Your task to perform on an android device: Show me popular videos on Youtube Image 0: 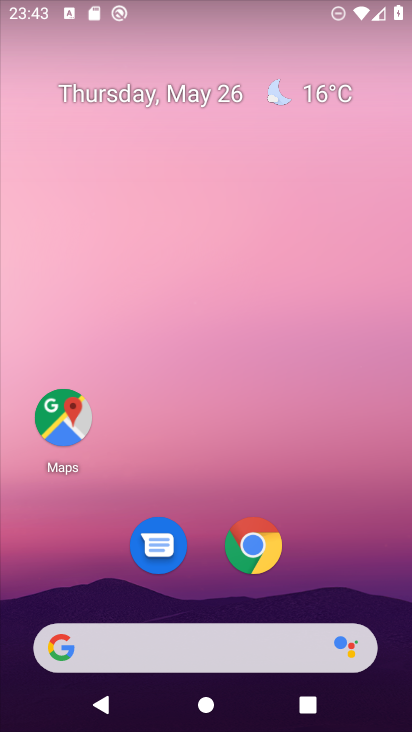
Step 0: press home button
Your task to perform on an android device: Show me popular videos on Youtube Image 1: 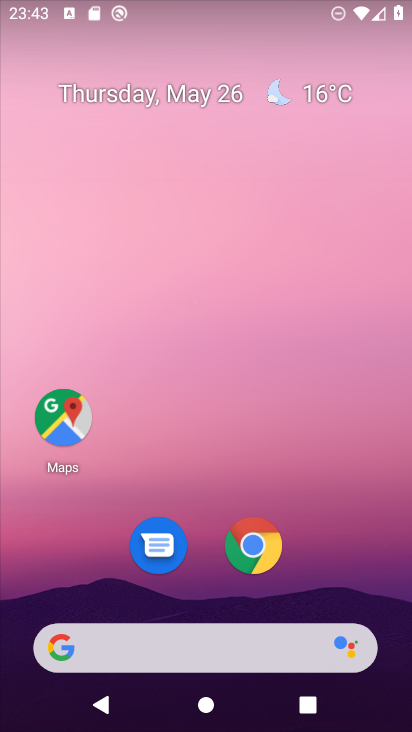
Step 1: drag from (321, 607) to (345, 246)
Your task to perform on an android device: Show me popular videos on Youtube Image 2: 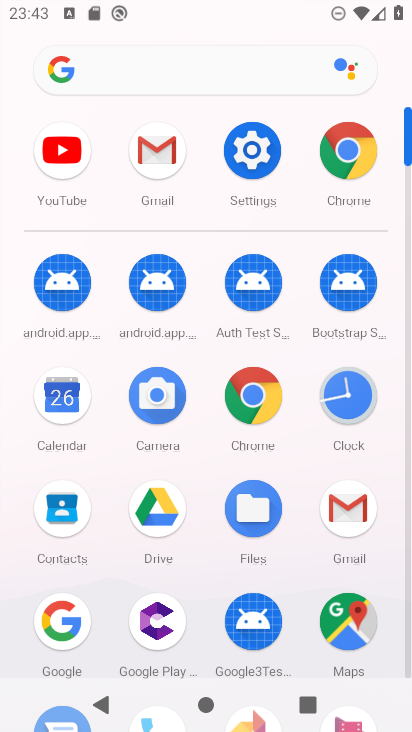
Step 2: click (64, 168)
Your task to perform on an android device: Show me popular videos on Youtube Image 3: 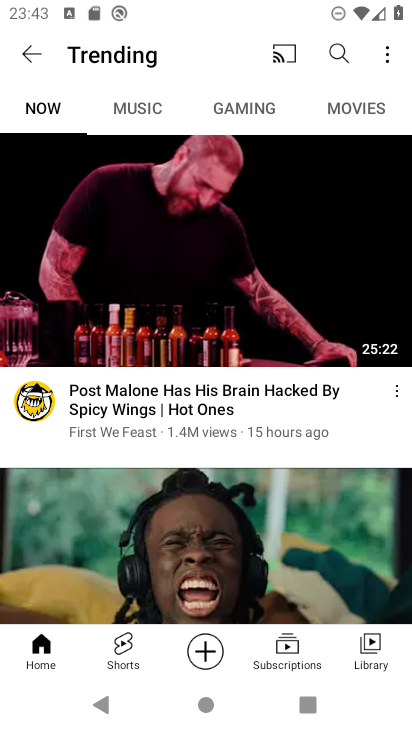
Step 3: click (45, 649)
Your task to perform on an android device: Show me popular videos on Youtube Image 4: 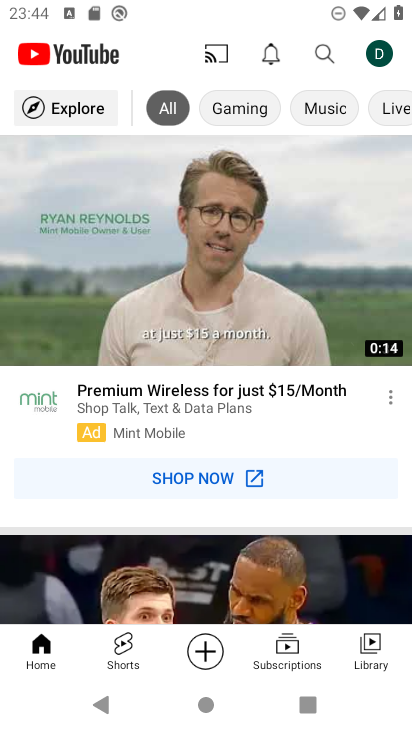
Step 4: click (78, 113)
Your task to perform on an android device: Show me popular videos on Youtube Image 5: 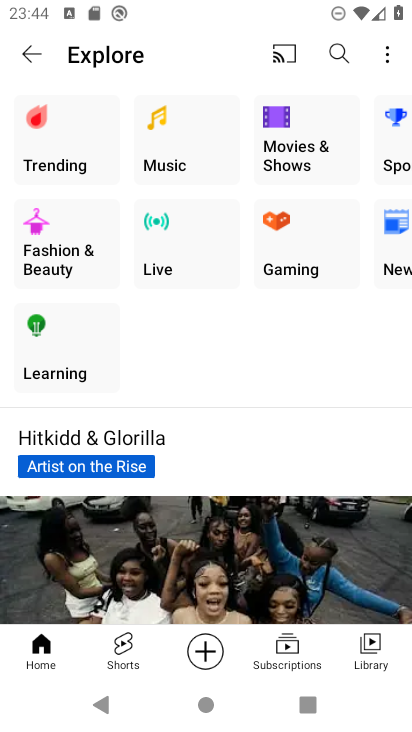
Step 5: click (62, 145)
Your task to perform on an android device: Show me popular videos on Youtube Image 6: 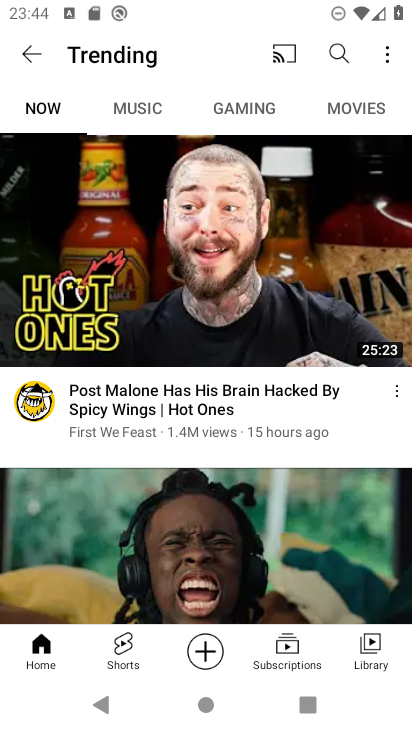
Step 6: task complete